Your task to perform on an android device: Show me popular videos on Youtube Image 0: 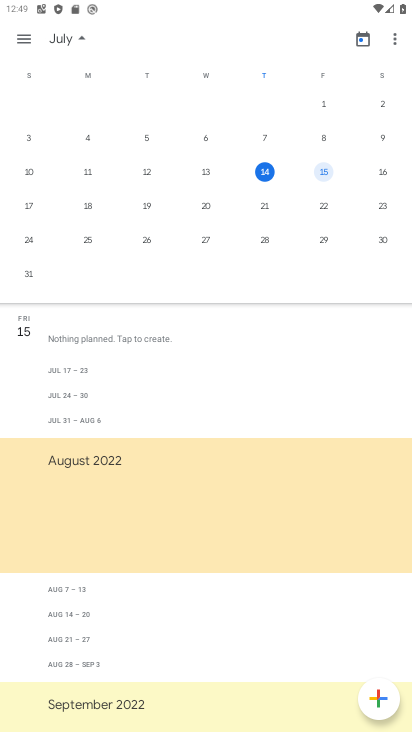
Step 0: press home button
Your task to perform on an android device: Show me popular videos on Youtube Image 1: 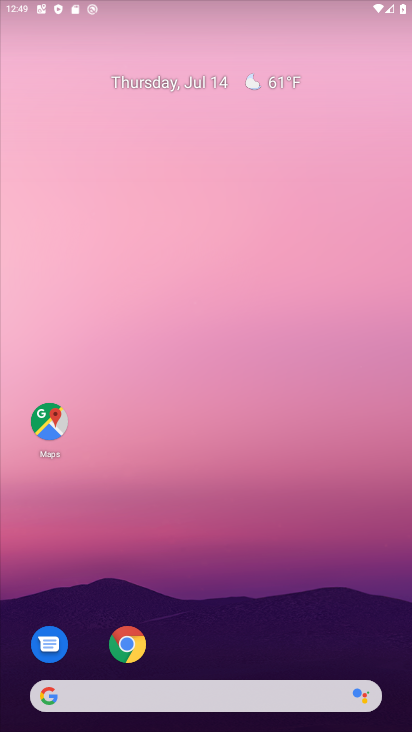
Step 1: drag from (339, 578) to (302, 43)
Your task to perform on an android device: Show me popular videos on Youtube Image 2: 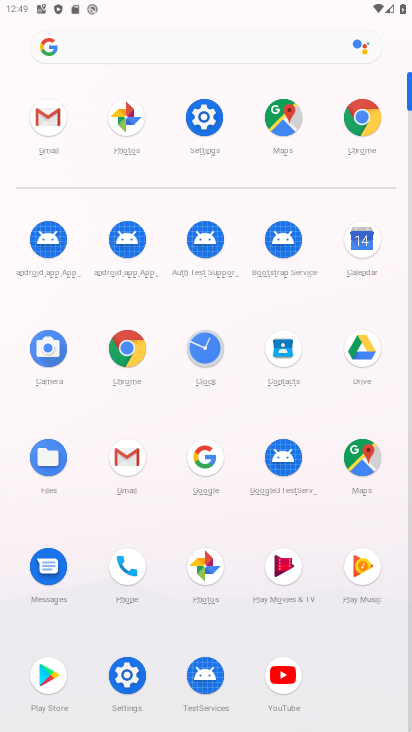
Step 2: click (278, 682)
Your task to perform on an android device: Show me popular videos on Youtube Image 3: 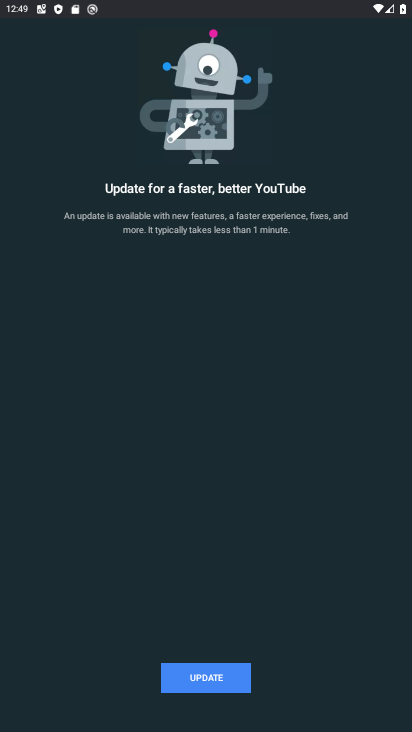
Step 3: click (214, 684)
Your task to perform on an android device: Show me popular videos on Youtube Image 4: 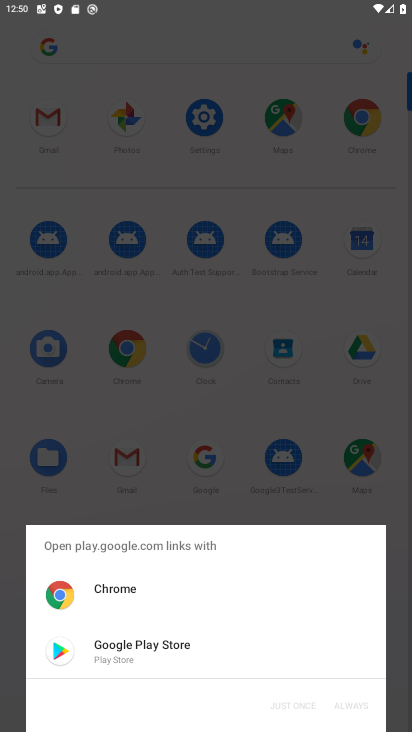
Step 4: click (188, 638)
Your task to perform on an android device: Show me popular videos on Youtube Image 5: 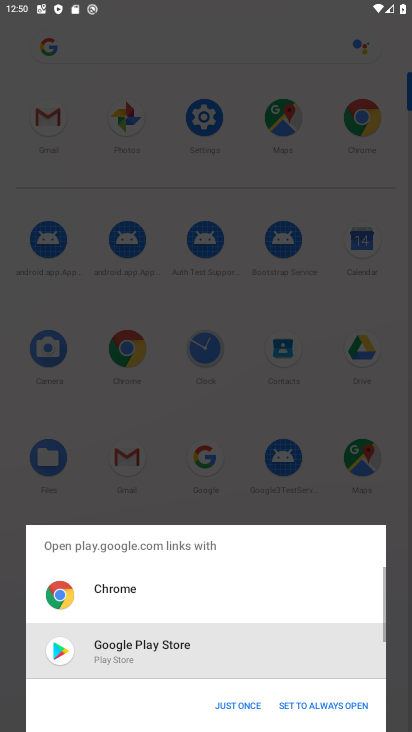
Step 5: click (257, 705)
Your task to perform on an android device: Show me popular videos on Youtube Image 6: 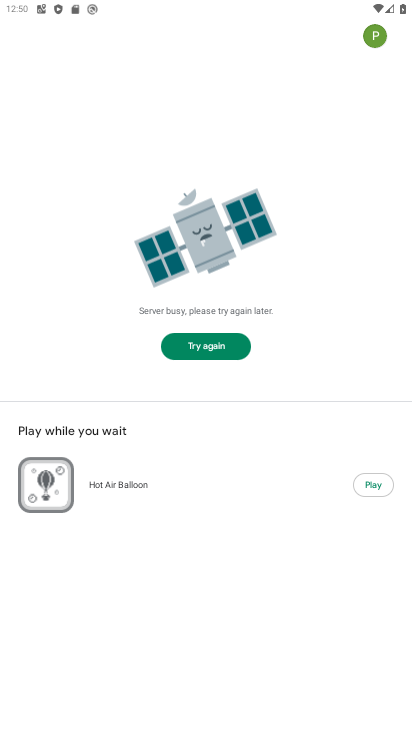
Step 6: click (212, 353)
Your task to perform on an android device: Show me popular videos on Youtube Image 7: 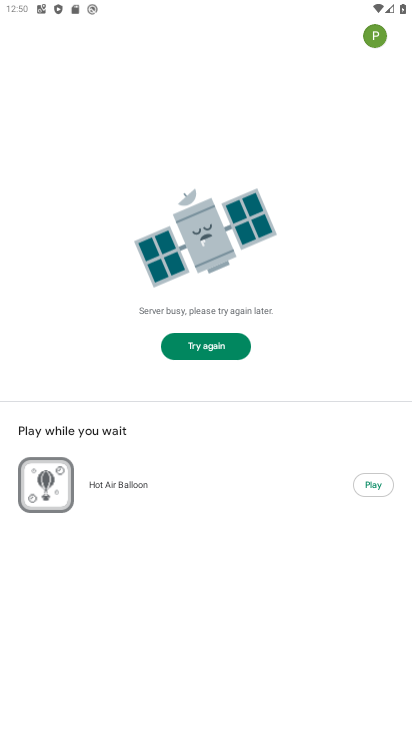
Step 7: task complete